Your task to perform on an android device: Open settings on Google Maps Image 0: 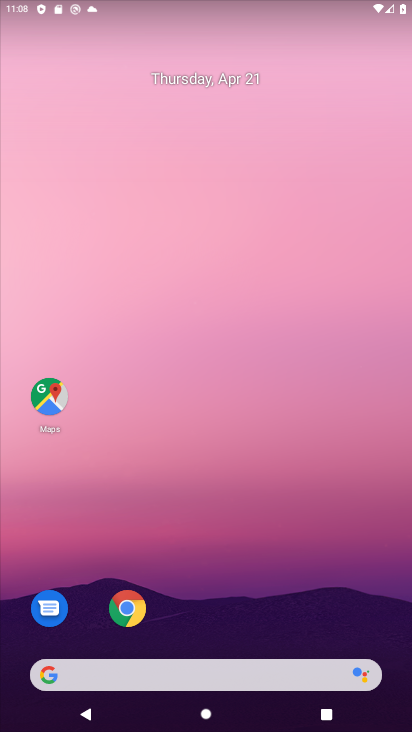
Step 0: click (46, 376)
Your task to perform on an android device: Open settings on Google Maps Image 1: 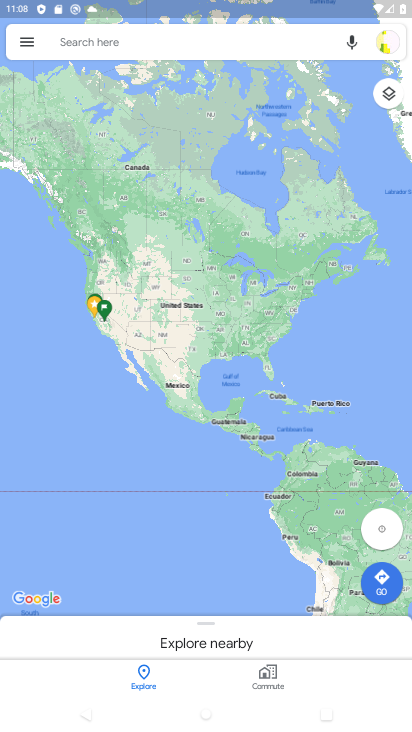
Step 1: click (24, 43)
Your task to perform on an android device: Open settings on Google Maps Image 2: 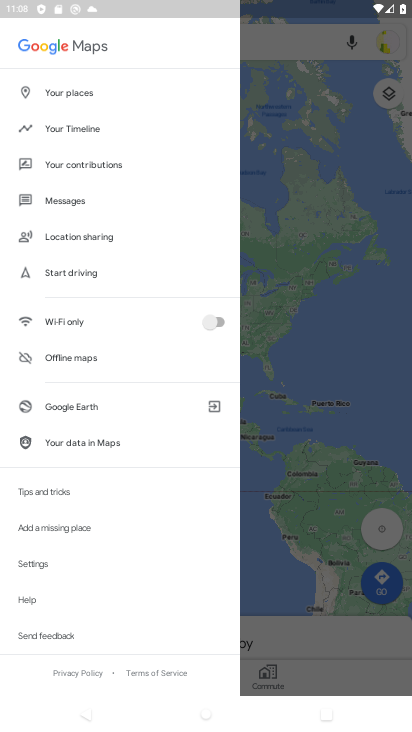
Step 2: click (30, 560)
Your task to perform on an android device: Open settings on Google Maps Image 3: 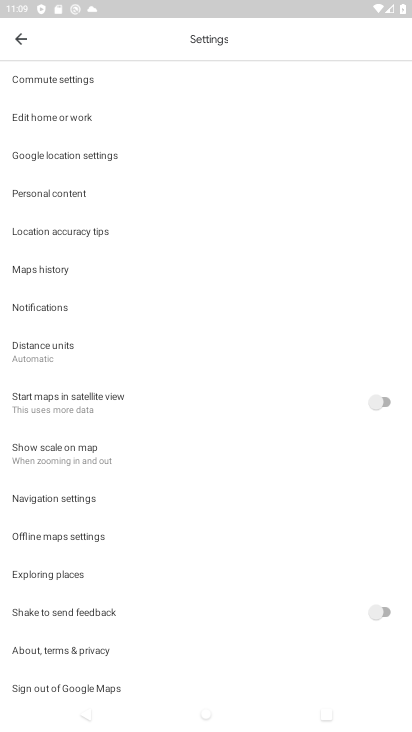
Step 3: task complete